Your task to perform on an android device: Open privacy settings Image 0: 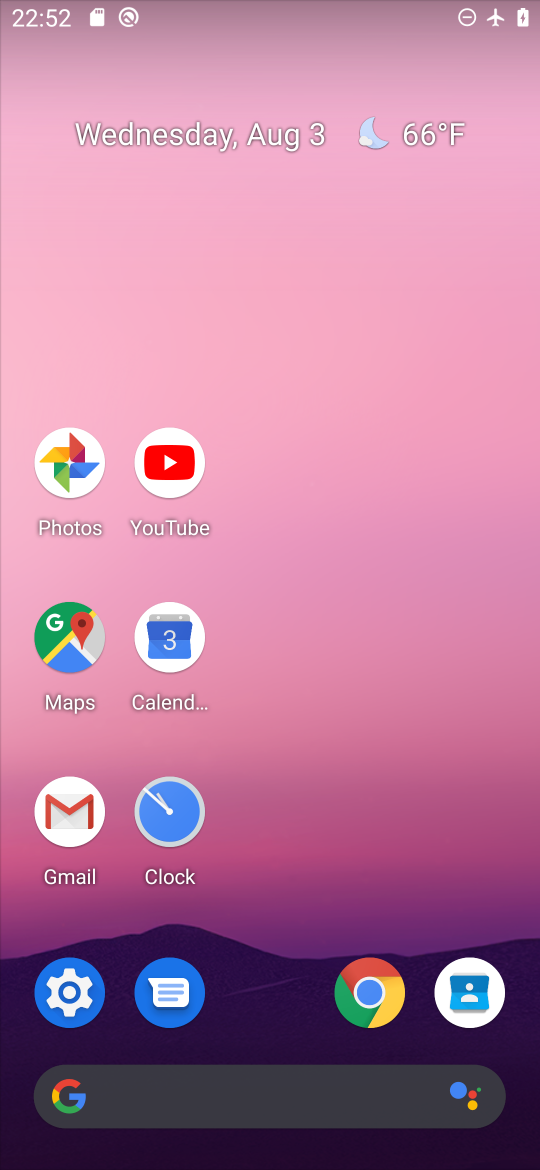
Step 0: click (76, 992)
Your task to perform on an android device: Open privacy settings Image 1: 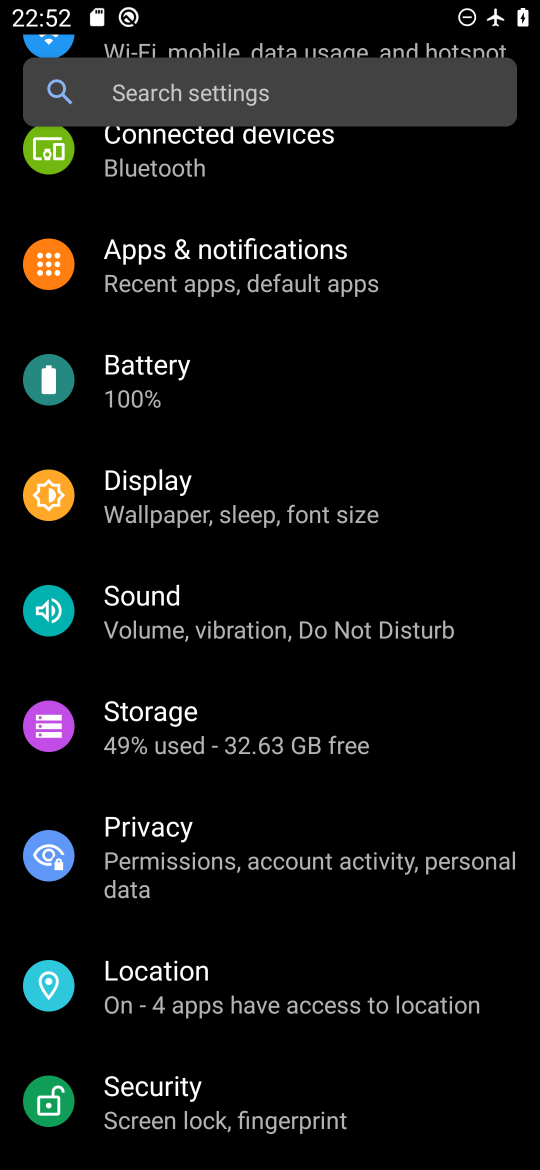
Step 1: click (163, 829)
Your task to perform on an android device: Open privacy settings Image 2: 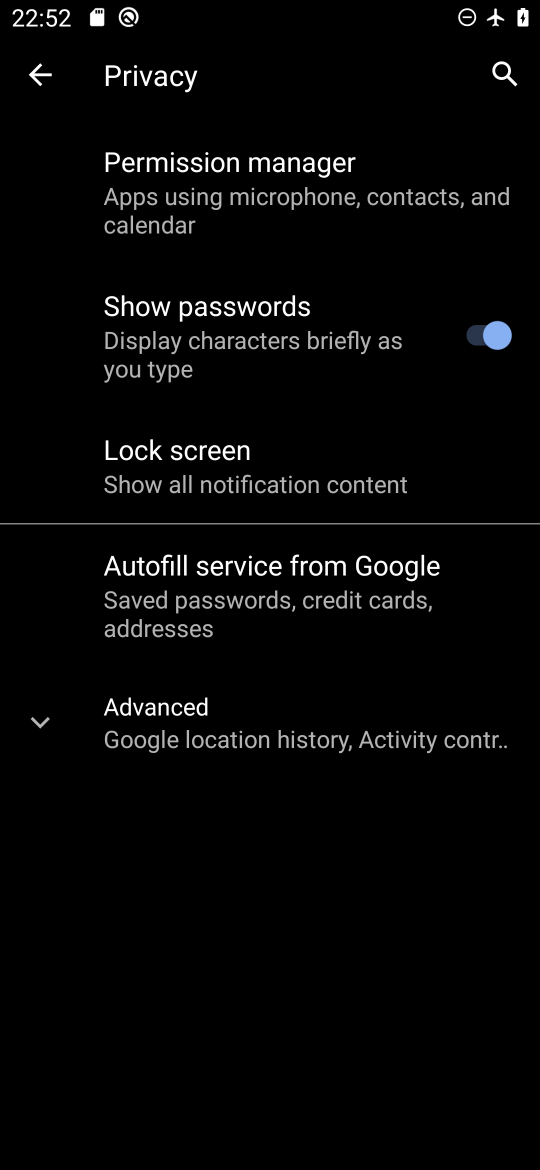
Step 2: task complete